Your task to perform on an android device: Go to Google maps Image 0: 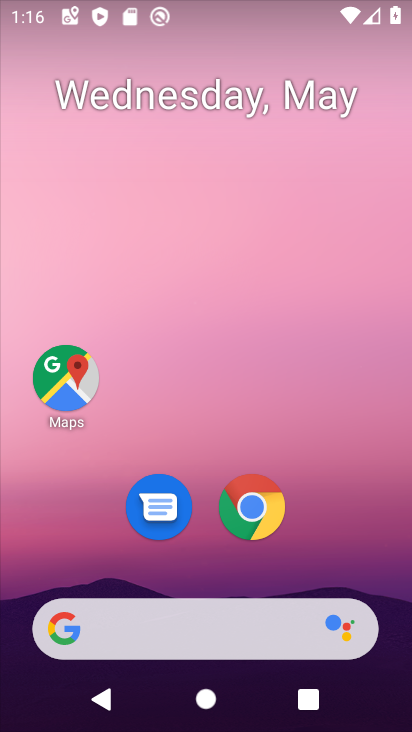
Step 0: drag from (228, 582) to (234, 218)
Your task to perform on an android device: Go to Google maps Image 1: 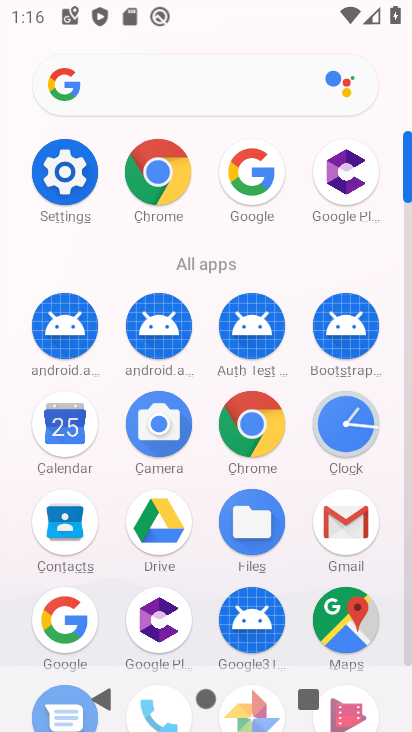
Step 1: click (349, 609)
Your task to perform on an android device: Go to Google maps Image 2: 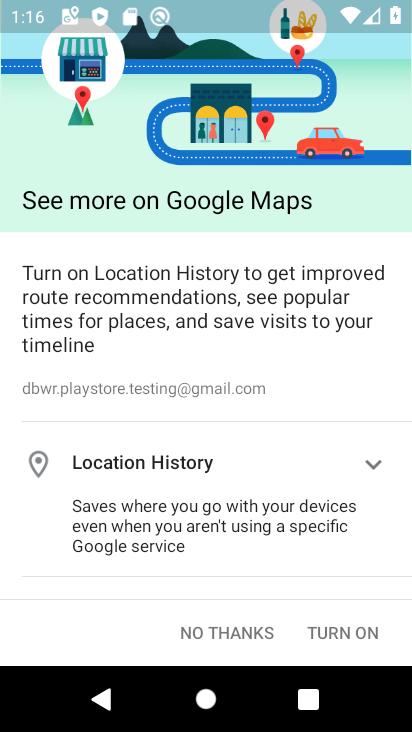
Step 2: click (339, 633)
Your task to perform on an android device: Go to Google maps Image 3: 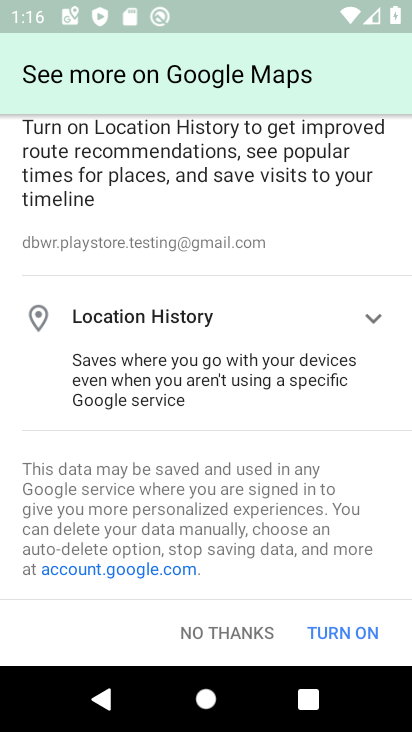
Step 3: click (357, 632)
Your task to perform on an android device: Go to Google maps Image 4: 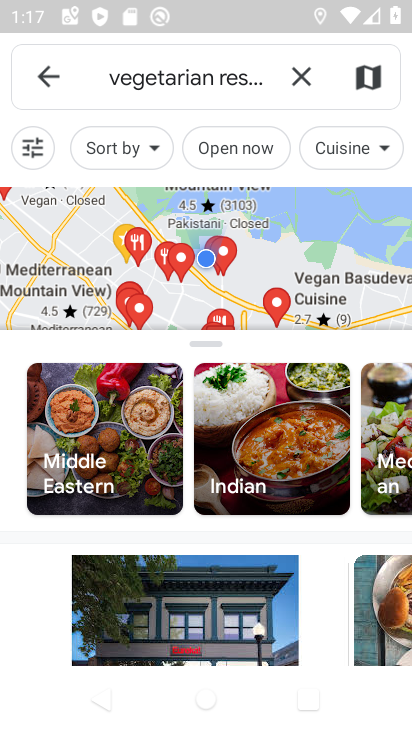
Step 4: task complete